Your task to perform on an android device: refresh tabs in the chrome app Image 0: 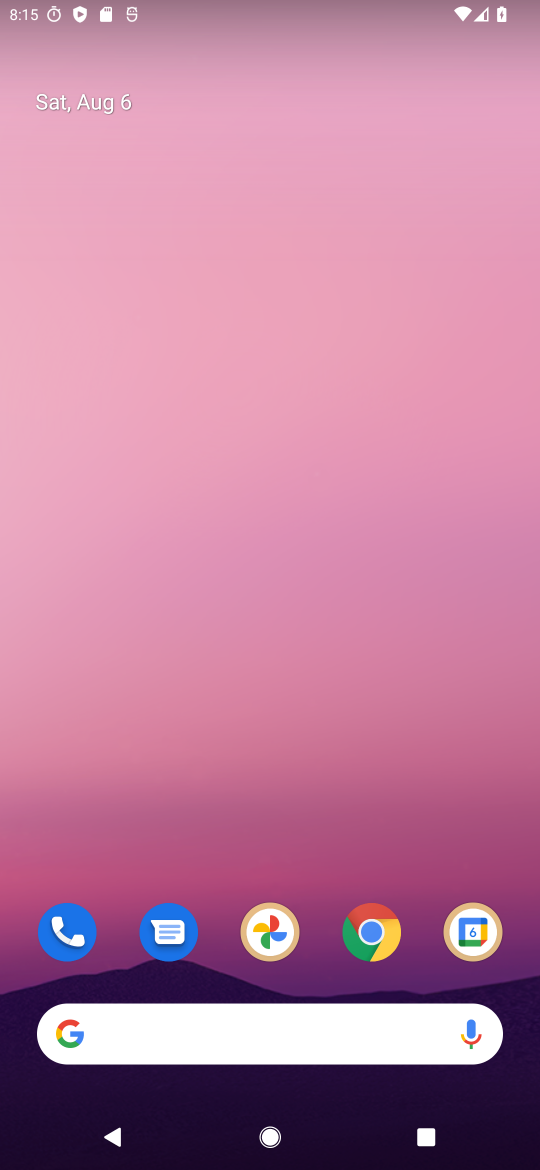
Step 0: click (370, 933)
Your task to perform on an android device: refresh tabs in the chrome app Image 1: 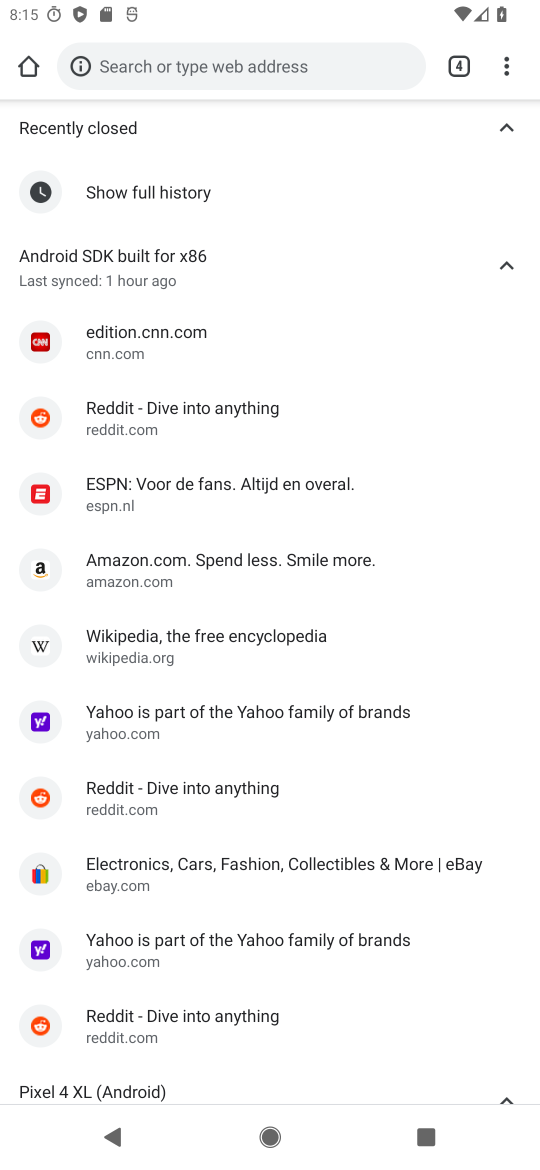
Step 1: click (504, 82)
Your task to perform on an android device: refresh tabs in the chrome app Image 2: 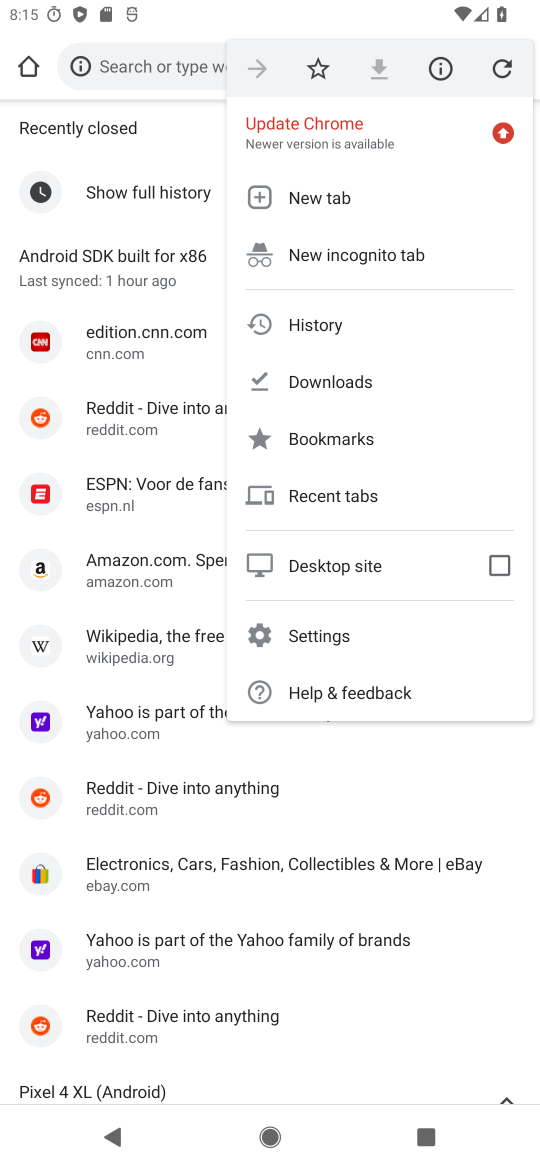
Step 2: click (495, 60)
Your task to perform on an android device: refresh tabs in the chrome app Image 3: 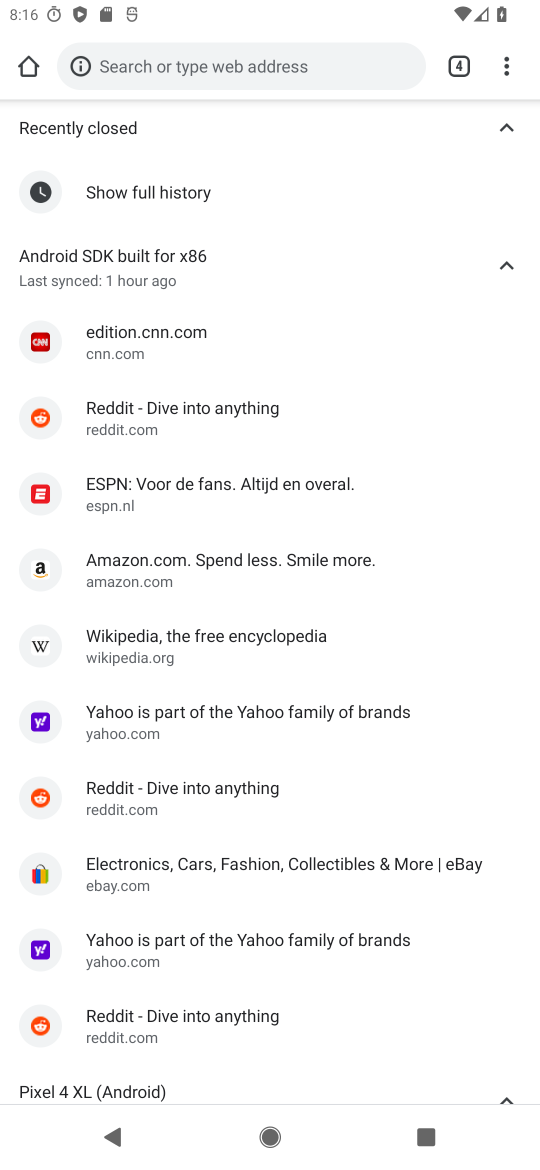
Step 3: task complete